Your task to perform on an android device: change the clock display to show seconds Image 0: 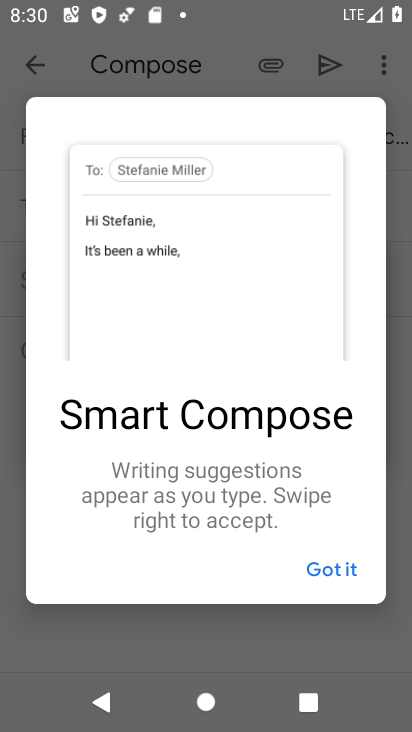
Step 0: press home button
Your task to perform on an android device: change the clock display to show seconds Image 1: 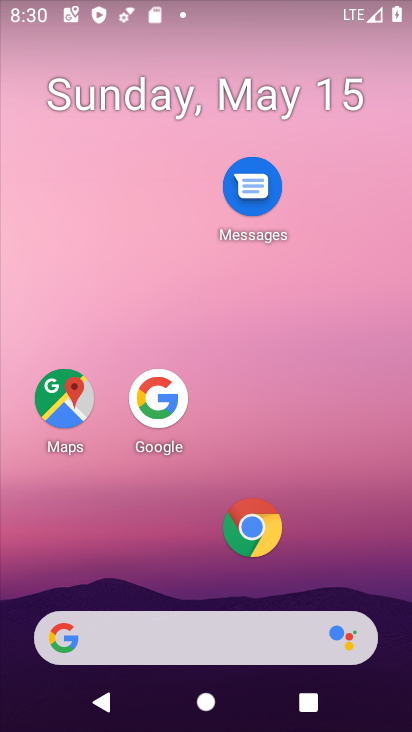
Step 1: drag from (199, 637) to (308, 221)
Your task to perform on an android device: change the clock display to show seconds Image 2: 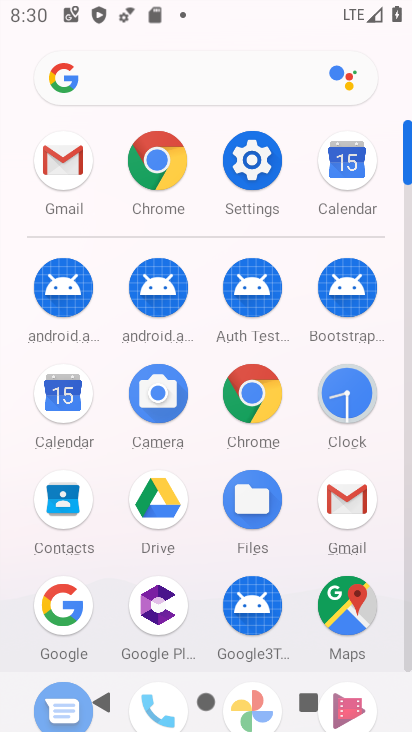
Step 2: click (342, 404)
Your task to perform on an android device: change the clock display to show seconds Image 3: 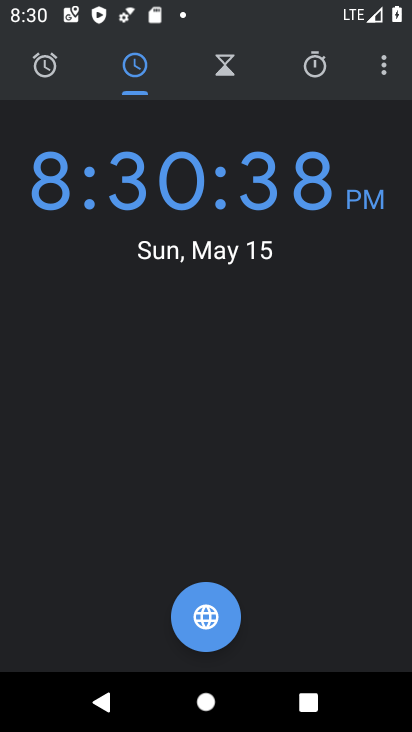
Step 3: click (387, 68)
Your task to perform on an android device: change the clock display to show seconds Image 4: 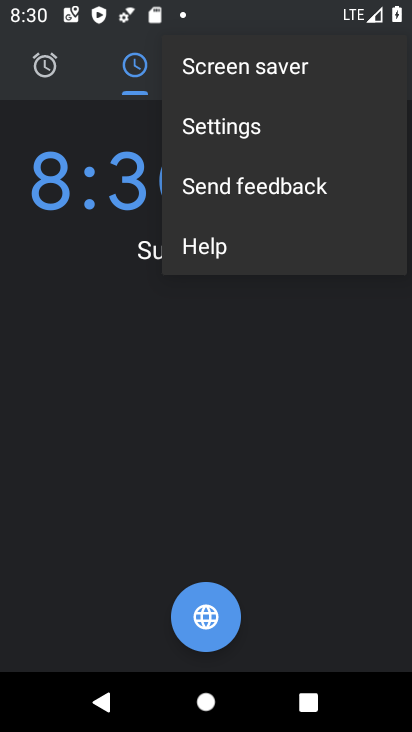
Step 4: click (313, 138)
Your task to perform on an android device: change the clock display to show seconds Image 5: 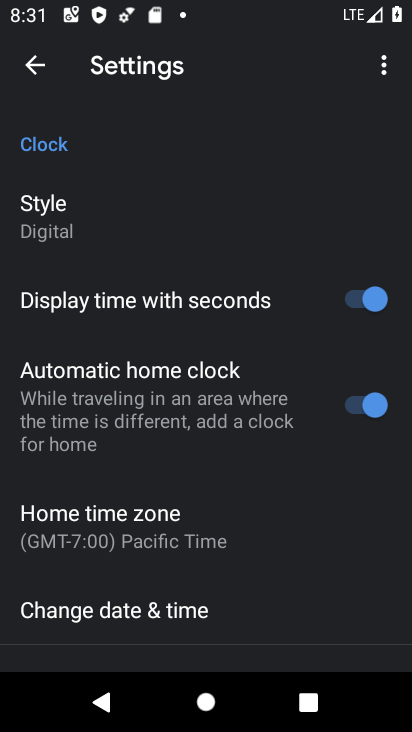
Step 5: task complete